Your task to perform on an android device: allow cookies in the chrome app Image 0: 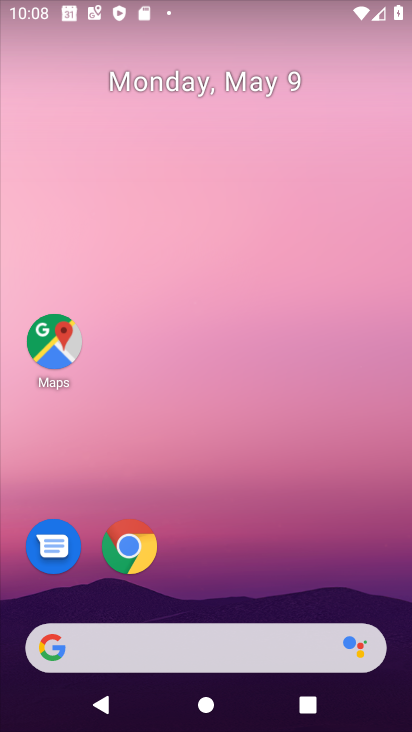
Step 0: drag from (248, 707) to (184, 62)
Your task to perform on an android device: allow cookies in the chrome app Image 1: 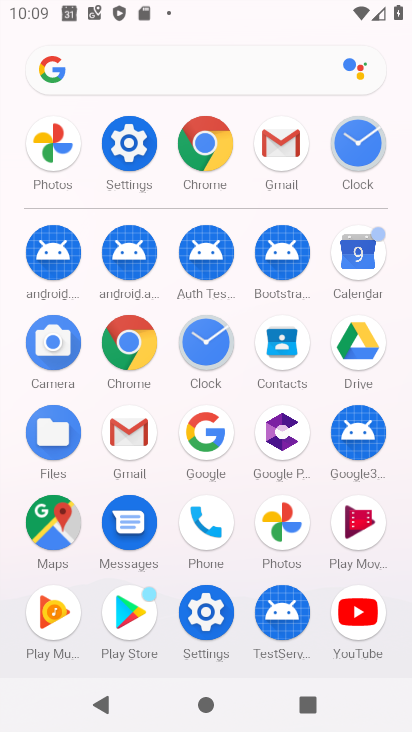
Step 1: click (204, 143)
Your task to perform on an android device: allow cookies in the chrome app Image 2: 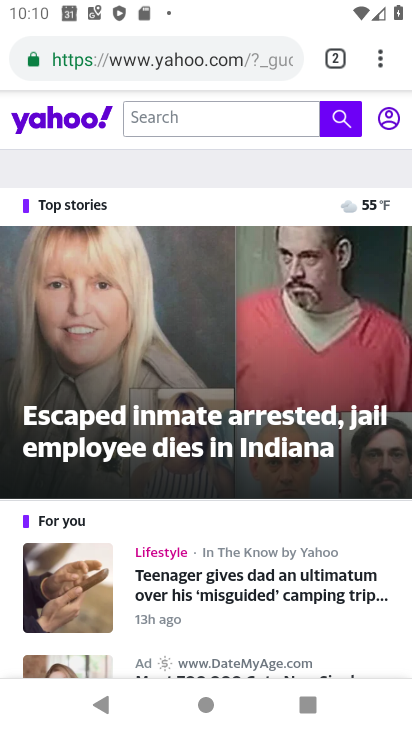
Step 2: click (385, 61)
Your task to perform on an android device: allow cookies in the chrome app Image 3: 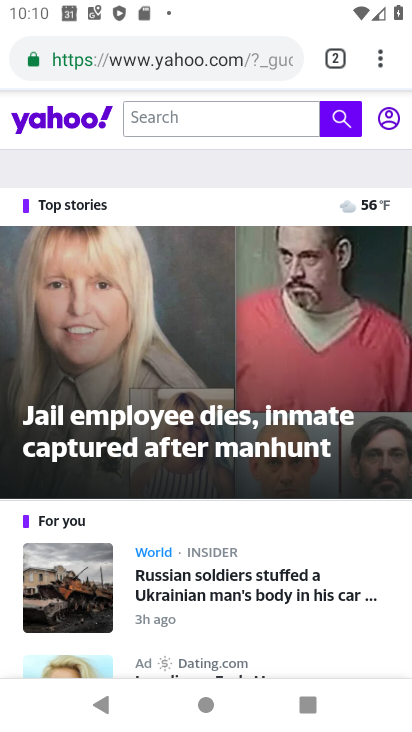
Step 3: click (378, 57)
Your task to perform on an android device: allow cookies in the chrome app Image 4: 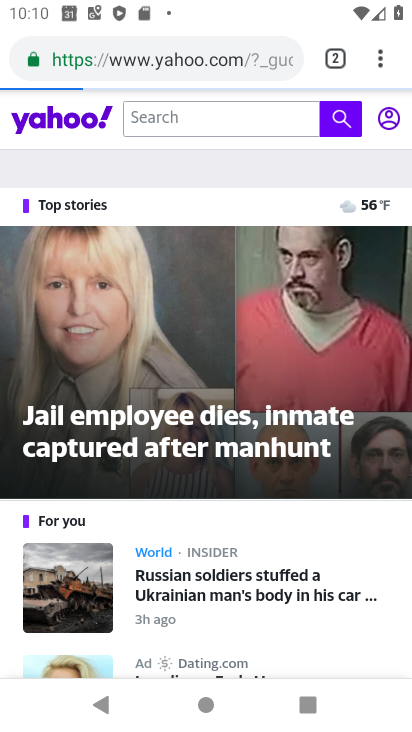
Step 4: click (380, 52)
Your task to perform on an android device: allow cookies in the chrome app Image 5: 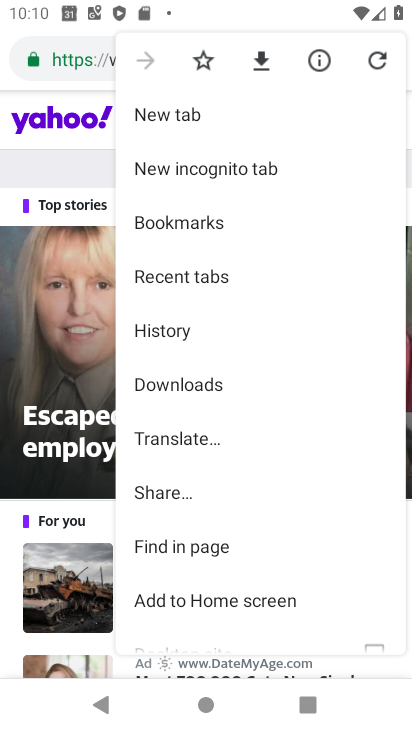
Step 5: drag from (163, 529) to (147, 186)
Your task to perform on an android device: allow cookies in the chrome app Image 6: 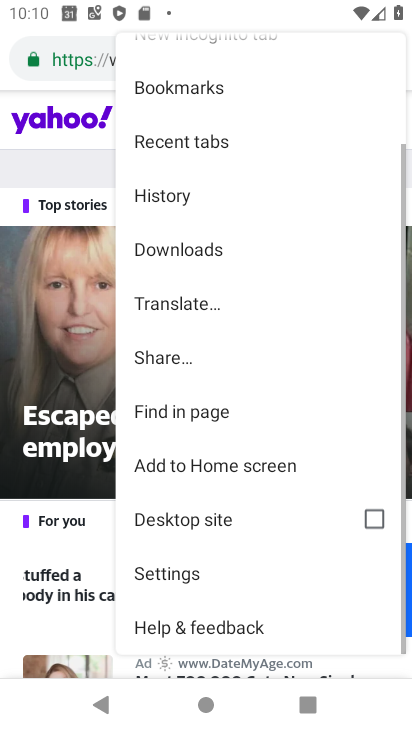
Step 6: click (225, 573)
Your task to perform on an android device: allow cookies in the chrome app Image 7: 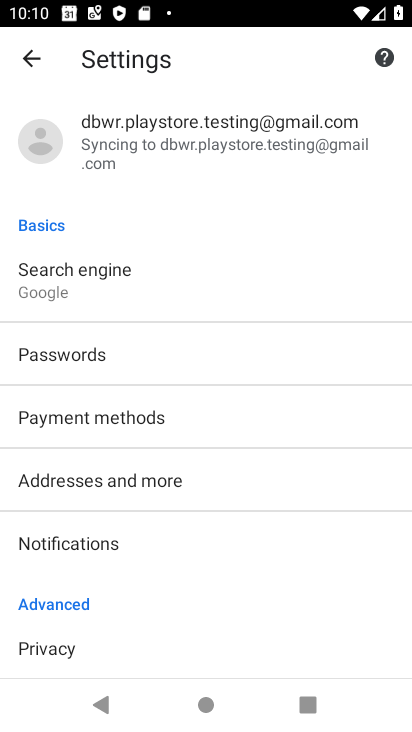
Step 7: drag from (195, 663) to (175, 219)
Your task to perform on an android device: allow cookies in the chrome app Image 8: 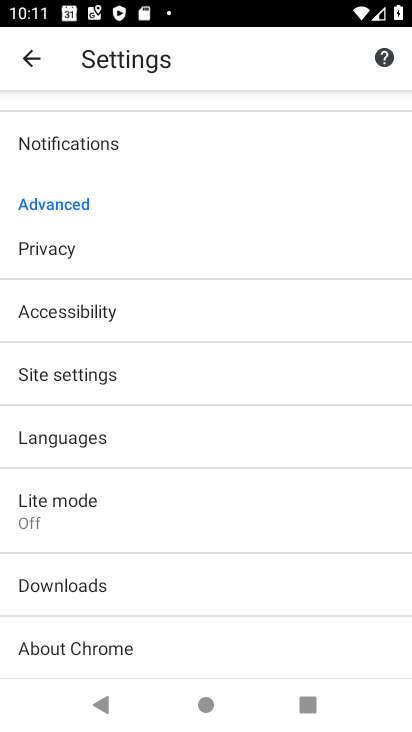
Step 8: click (83, 382)
Your task to perform on an android device: allow cookies in the chrome app Image 9: 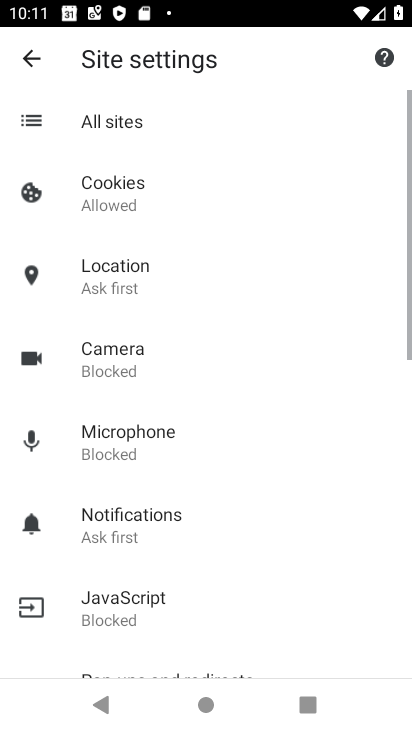
Step 9: click (208, 194)
Your task to perform on an android device: allow cookies in the chrome app Image 10: 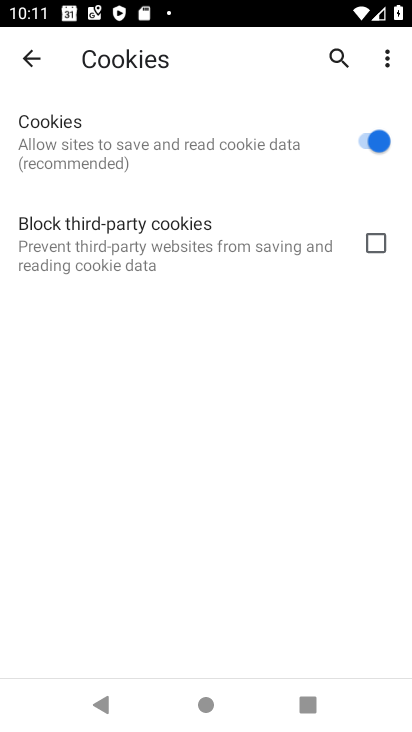
Step 10: task complete